Your task to perform on an android device: clear all cookies in the chrome app Image 0: 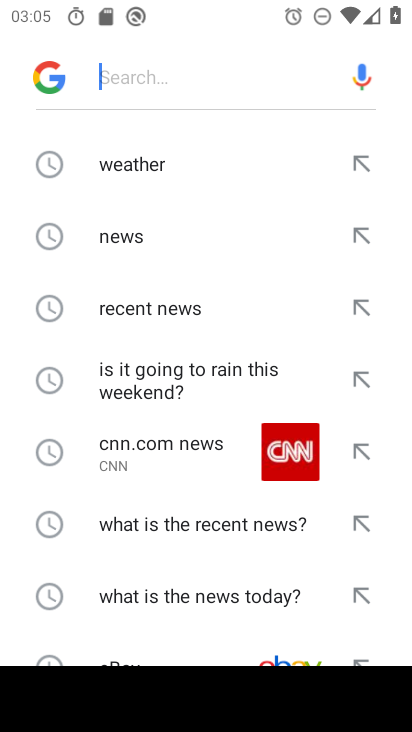
Step 0: press home button
Your task to perform on an android device: clear all cookies in the chrome app Image 1: 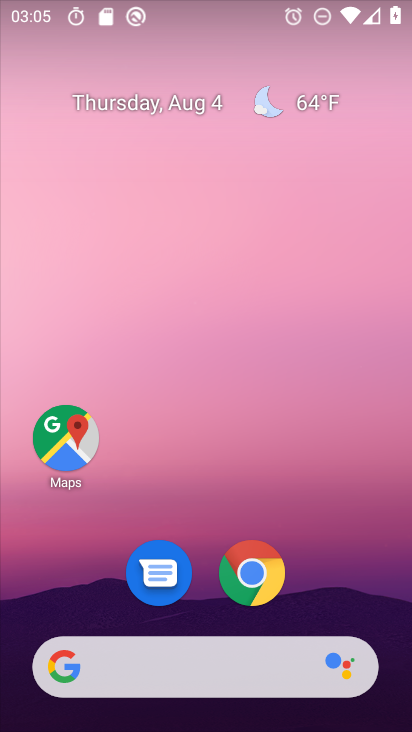
Step 1: drag from (343, 562) to (369, 9)
Your task to perform on an android device: clear all cookies in the chrome app Image 2: 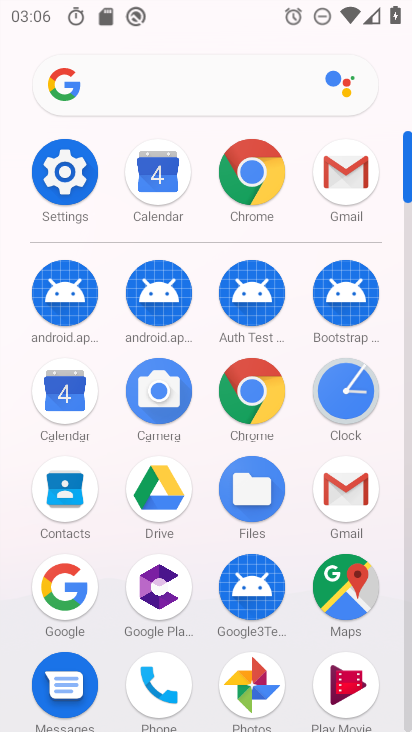
Step 2: click (253, 386)
Your task to perform on an android device: clear all cookies in the chrome app Image 3: 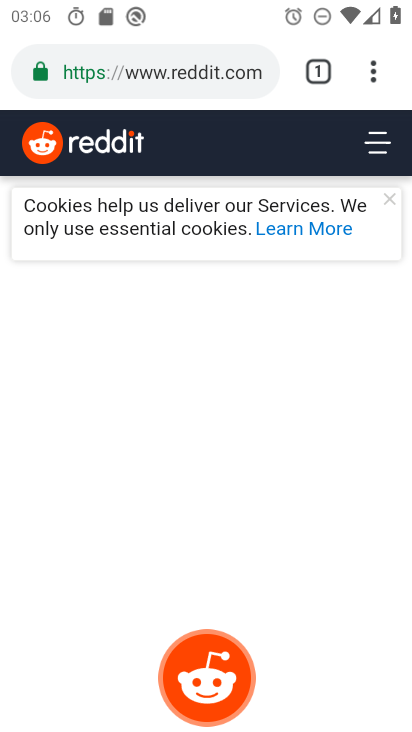
Step 3: drag from (377, 66) to (162, 410)
Your task to perform on an android device: clear all cookies in the chrome app Image 4: 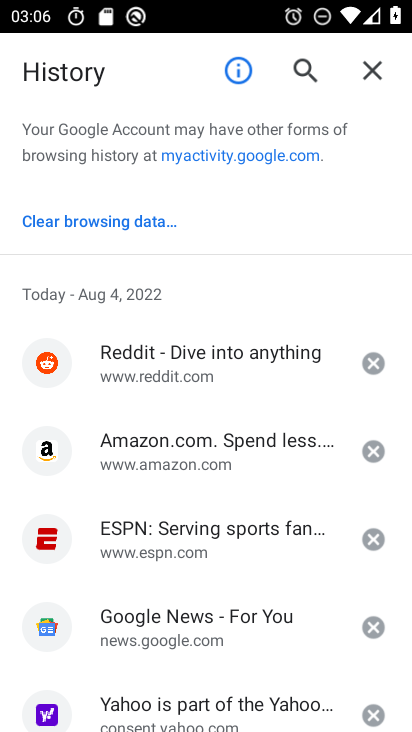
Step 4: click (149, 223)
Your task to perform on an android device: clear all cookies in the chrome app Image 5: 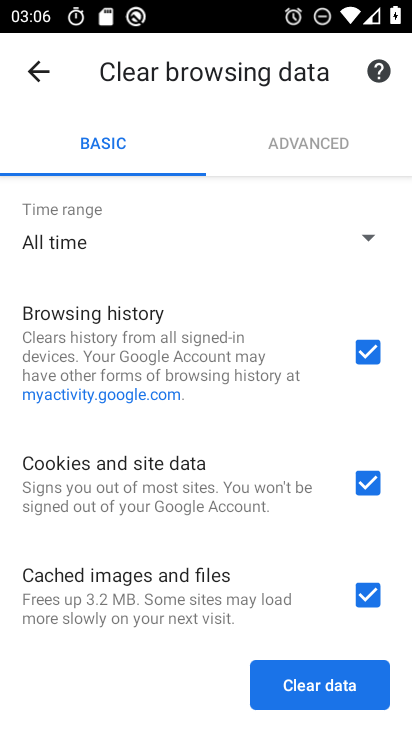
Step 5: click (318, 686)
Your task to perform on an android device: clear all cookies in the chrome app Image 6: 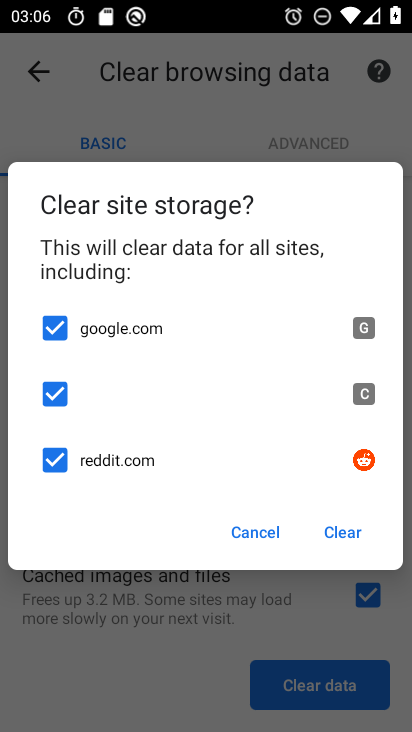
Step 6: click (356, 521)
Your task to perform on an android device: clear all cookies in the chrome app Image 7: 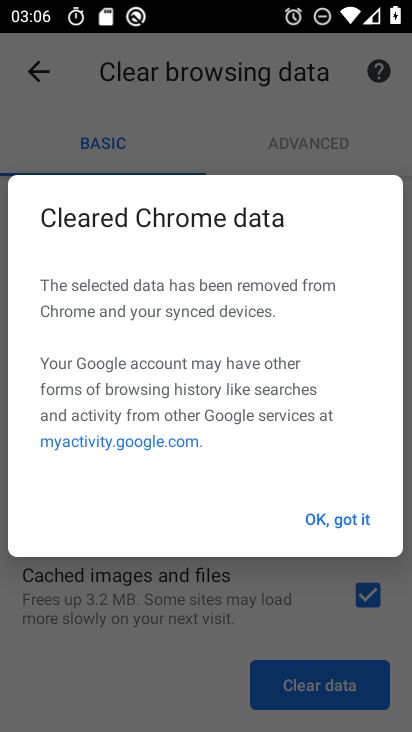
Step 7: click (356, 521)
Your task to perform on an android device: clear all cookies in the chrome app Image 8: 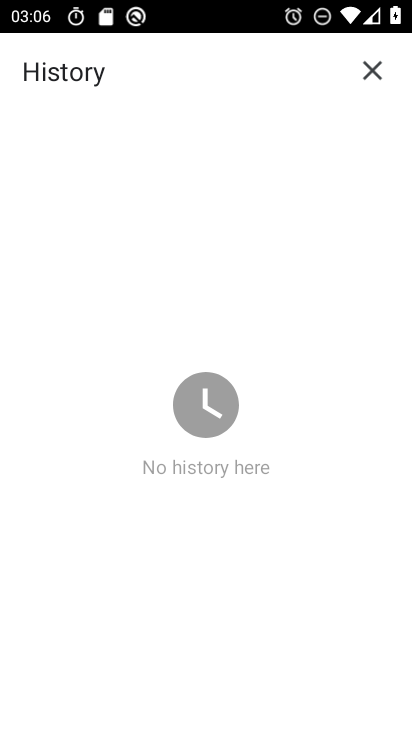
Step 8: task complete